Your task to perform on an android device: check storage Image 0: 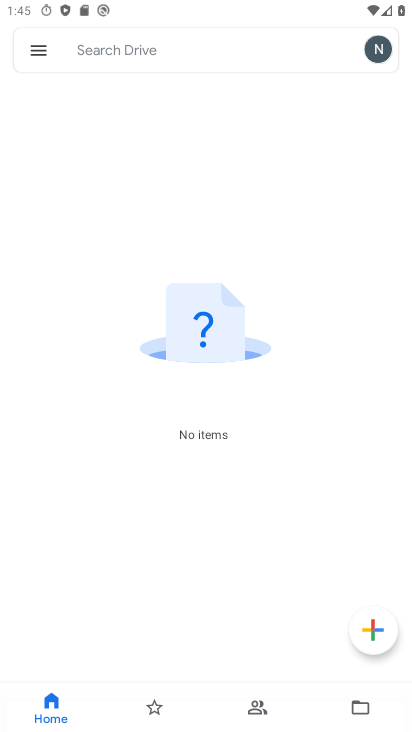
Step 0: press home button
Your task to perform on an android device: check storage Image 1: 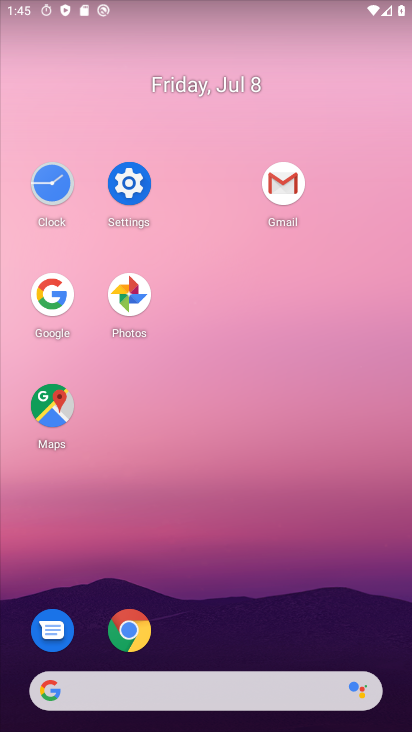
Step 1: click (125, 194)
Your task to perform on an android device: check storage Image 2: 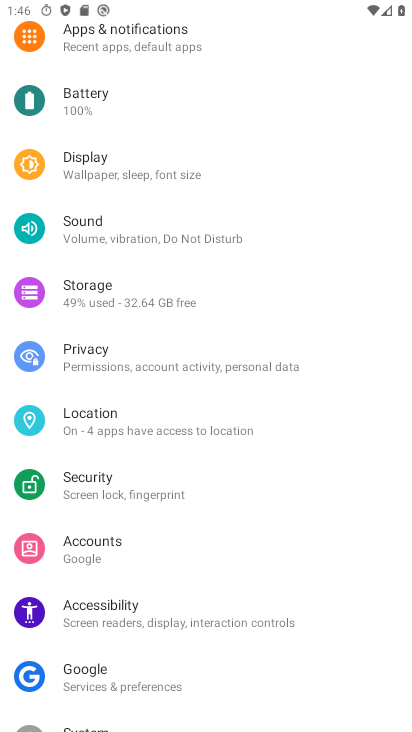
Step 2: click (153, 311)
Your task to perform on an android device: check storage Image 3: 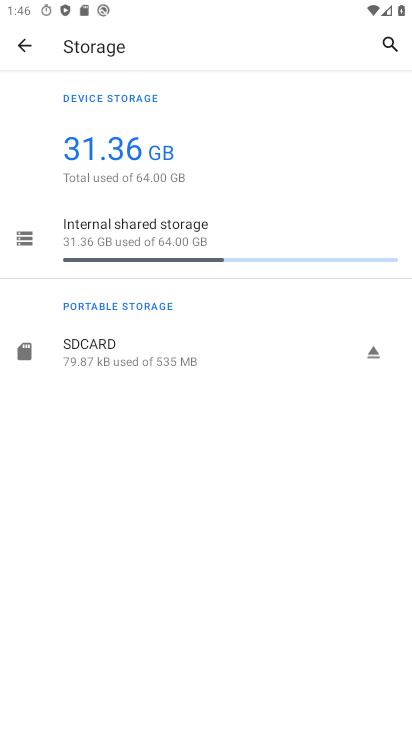
Step 3: task complete